Your task to perform on an android device: Open settings Image 0: 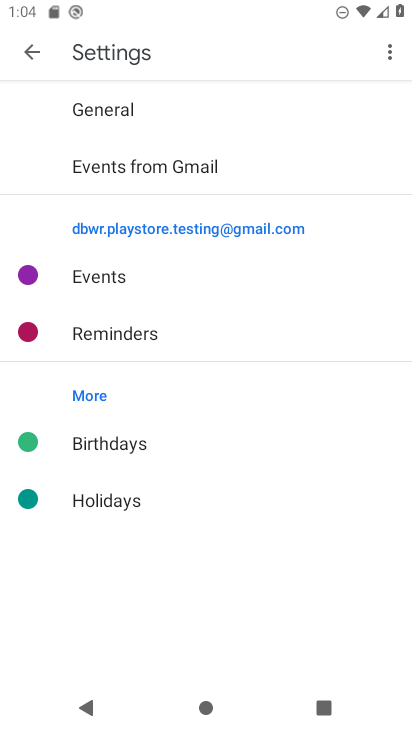
Step 0: press home button
Your task to perform on an android device: Open settings Image 1: 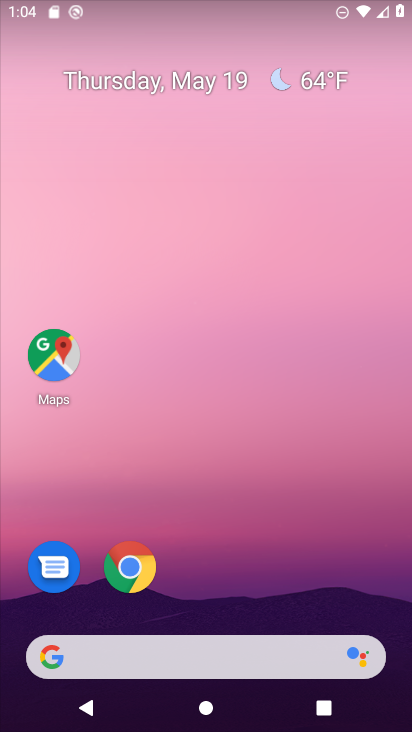
Step 1: drag from (266, 550) to (287, 116)
Your task to perform on an android device: Open settings Image 2: 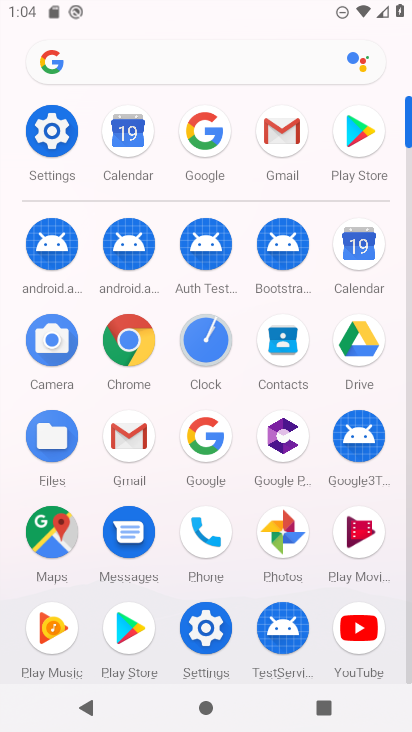
Step 2: click (61, 147)
Your task to perform on an android device: Open settings Image 3: 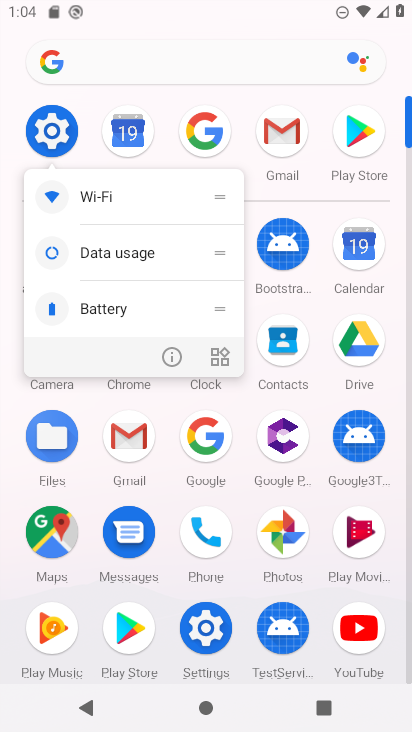
Step 3: click (61, 139)
Your task to perform on an android device: Open settings Image 4: 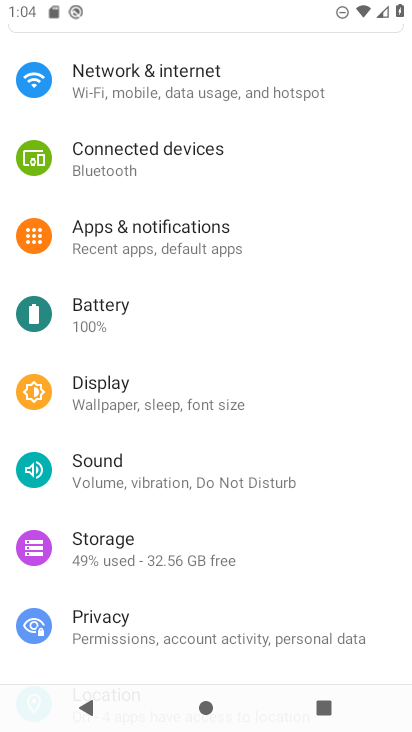
Step 4: task complete